Your task to perform on an android device: Go to battery settings Image 0: 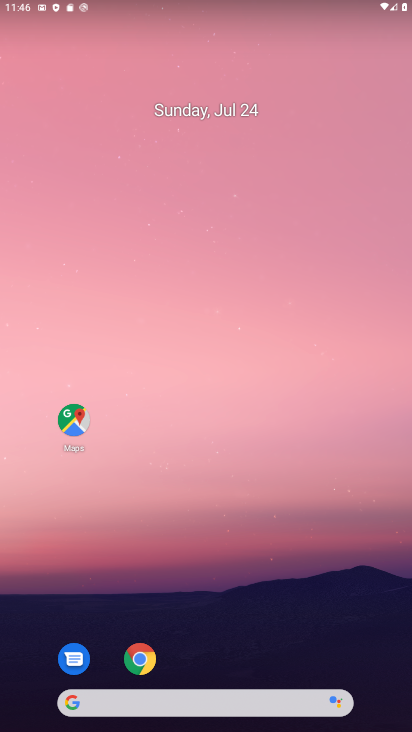
Step 0: drag from (228, 670) to (179, 43)
Your task to perform on an android device: Go to battery settings Image 1: 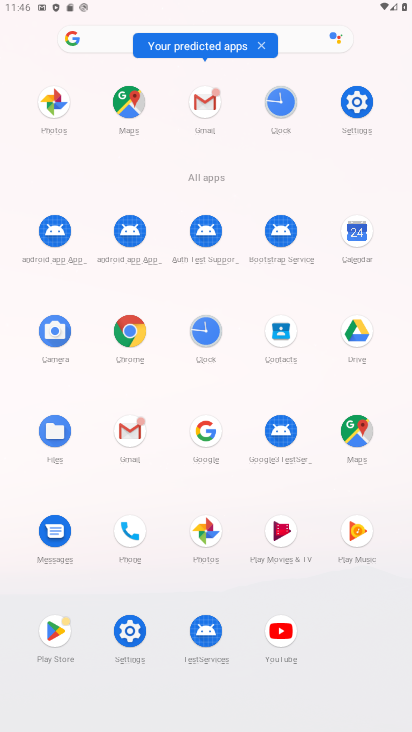
Step 1: click (128, 620)
Your task to perform on an android device: Go to battery settings Image 2: 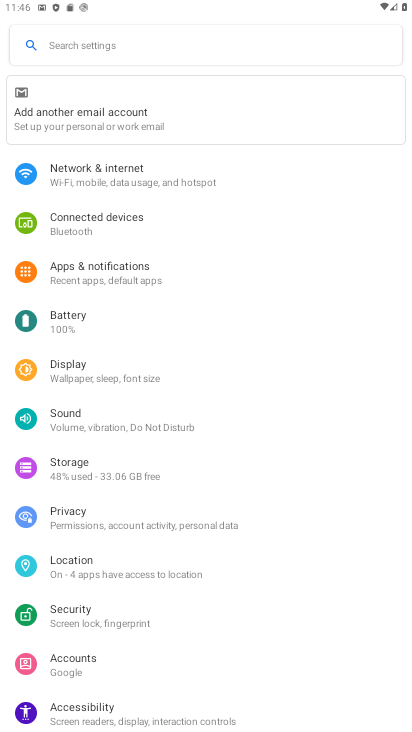
Step 2: click (94, 318)
Your task to perform on an android device: Go to battery settings Image 3: 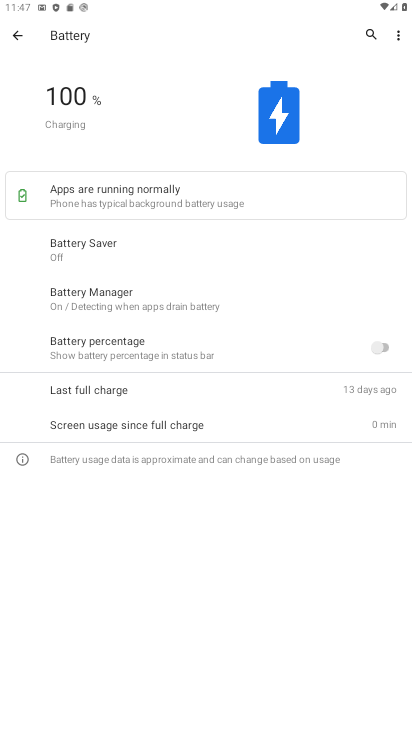
Step 3: task complete